Your task to perform on an android device: toggle show notifications on the lock screen Image 0: 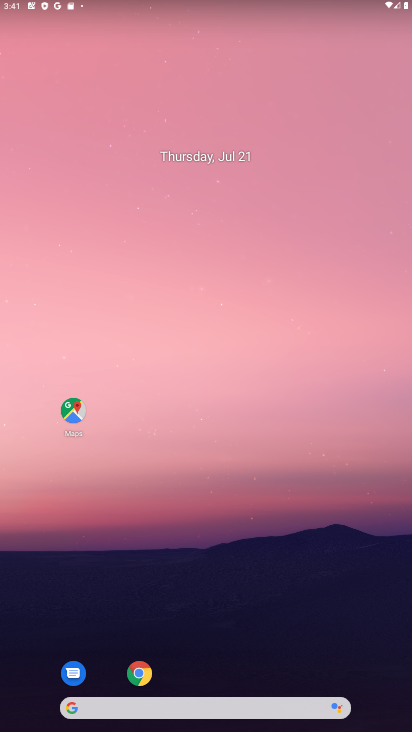
Step 0: drag from (256, 671) to (200, 196)
Your task to perform on an android device: toggle show notifications on the lock screen Image 1: 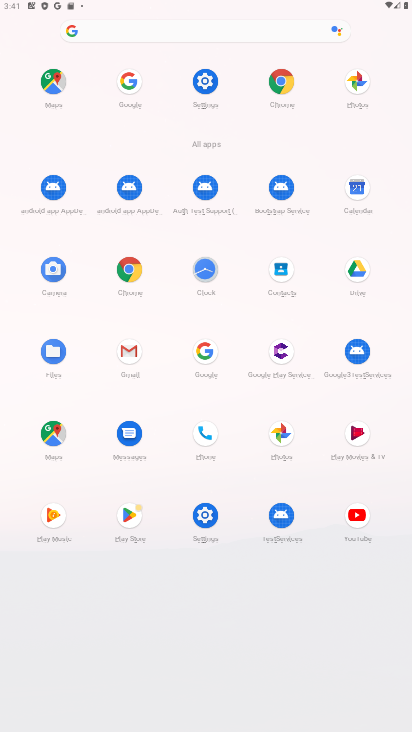
Step 1: click (208, 91)
Your task to perform on an android device: toggle show notifications on the lock screen Image 2: 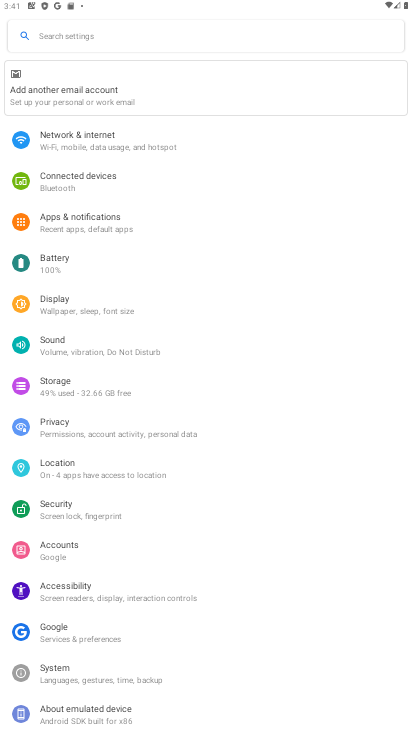
Step 2: click (70, 432)
Your task to perform on an android device: toggle show notifications on the lock screen Image 3: 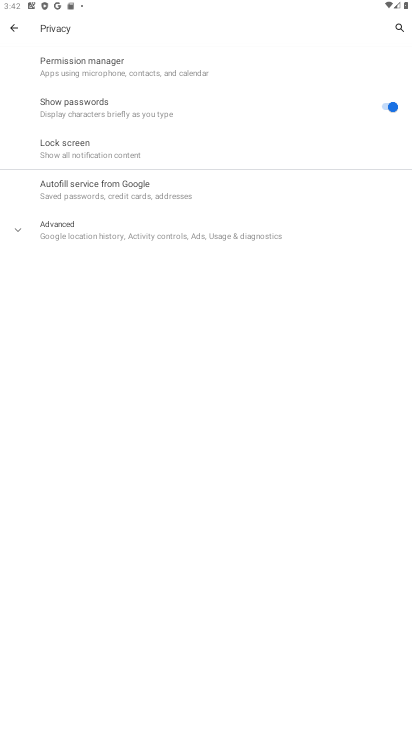
Step 3: click (63, 141)
Your task to perform on an android device: toggle show notifications on the lock screen Image 4: 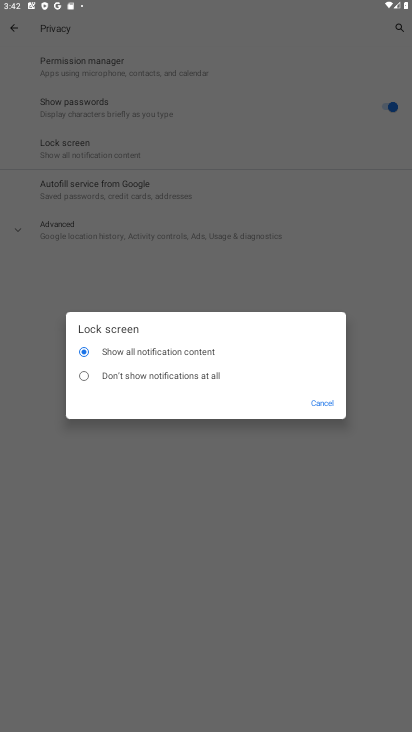
Step 4: click (147, 374)
Your task to perform on an android device: toggle show notifications on the lock screen Image 5: 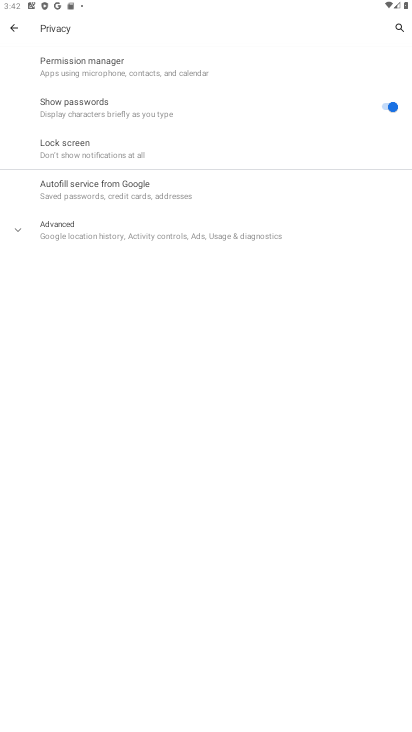
Step 5: task complete